Your task to perform on an android device: Open Android settings Image 0: 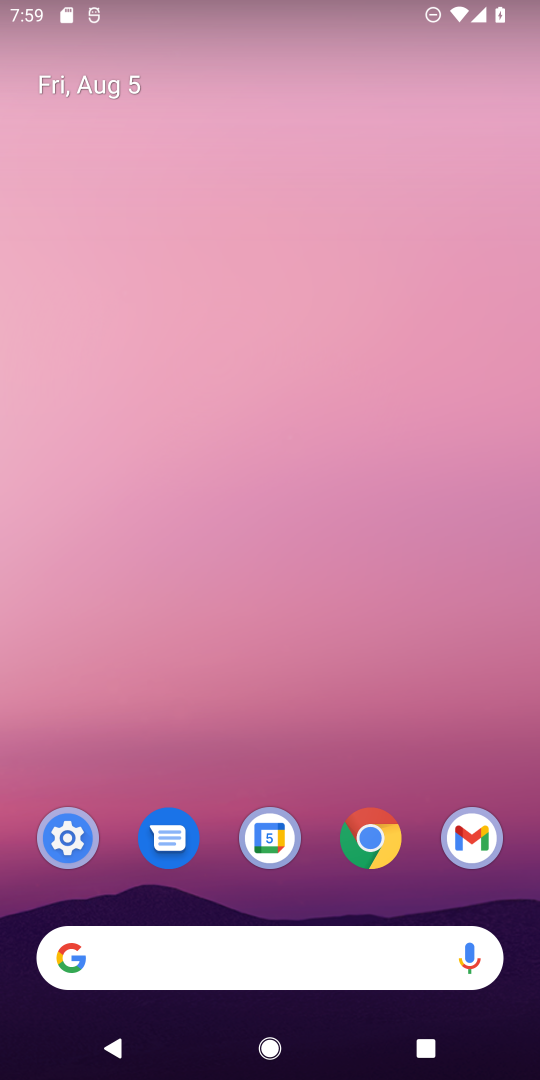
Step 0: drag from (249, 847) to (341, 158)
Your task to perform on an android device: Open Android settings Image 1: 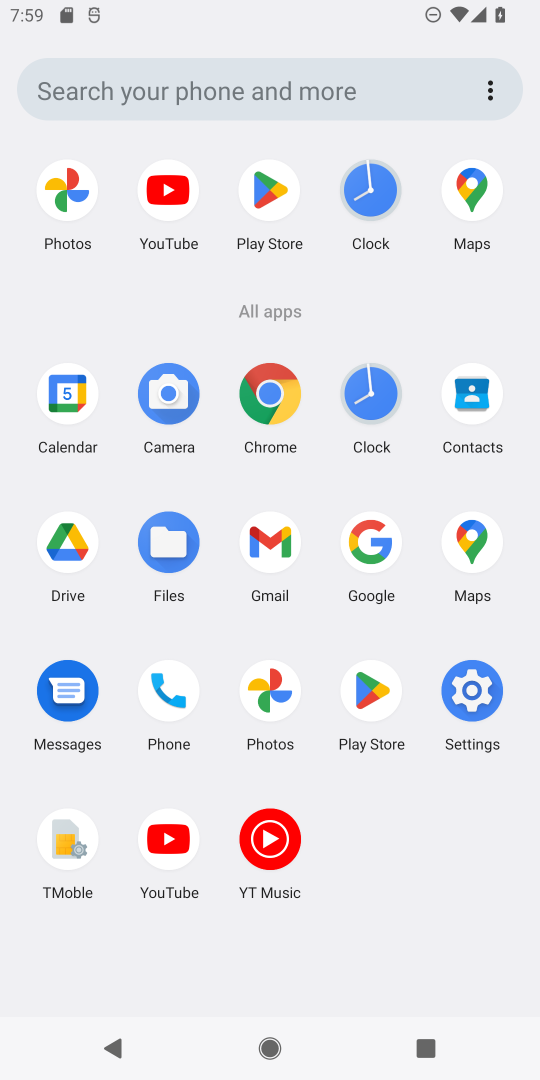
Step 1: click (456, 671)
Your task to perform on an android device: Open Android settings Image 2: 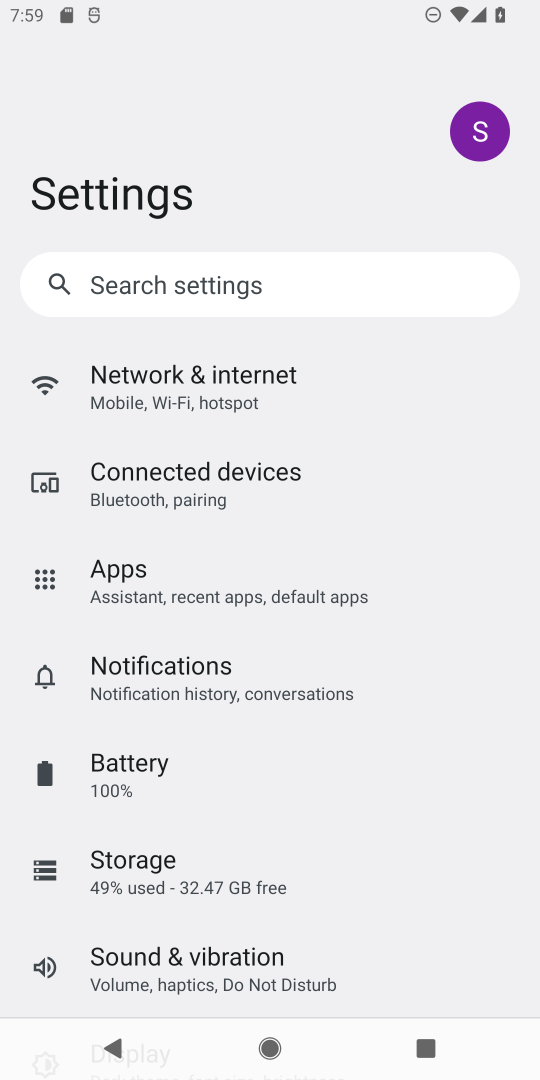
Step 2: task complete